Your task to perform on an android device: Open Reddit.com Image 0: 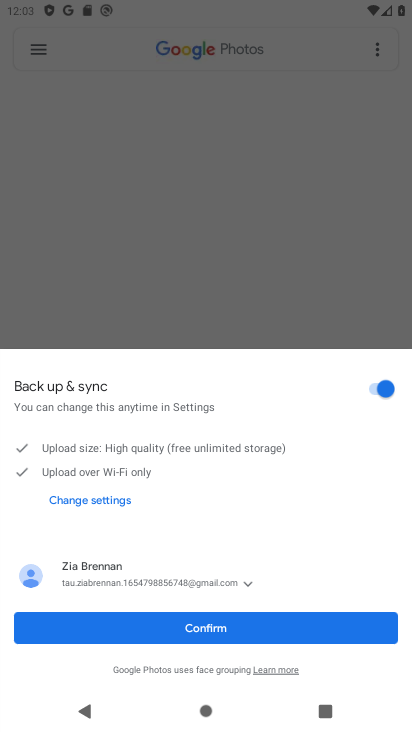
Step 0: press home button
Your task to perform on an android device: Open Reddit.com Image 1: 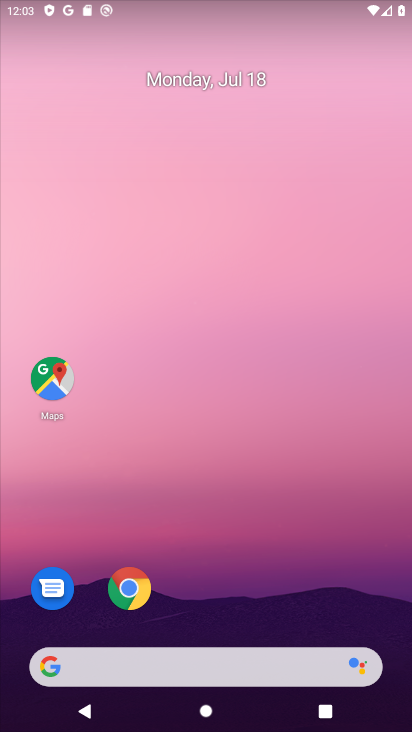
Step 1: click (116, 584)
Your task to perform on an android device: Open Reddit.com Image 2: 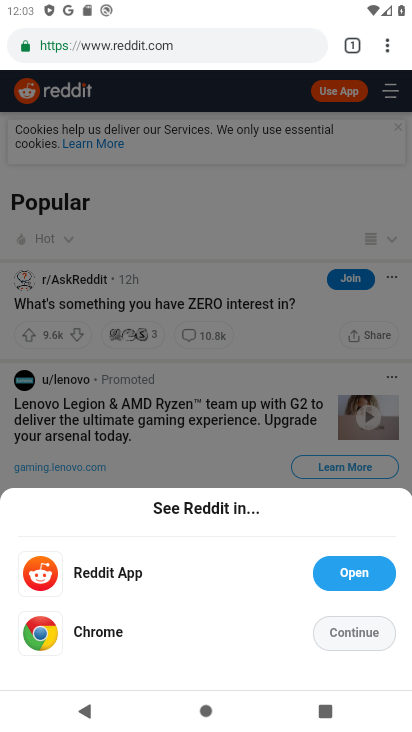
Step 2: task complete